Your task to perform on an android device: Open Google Maps Image 0: 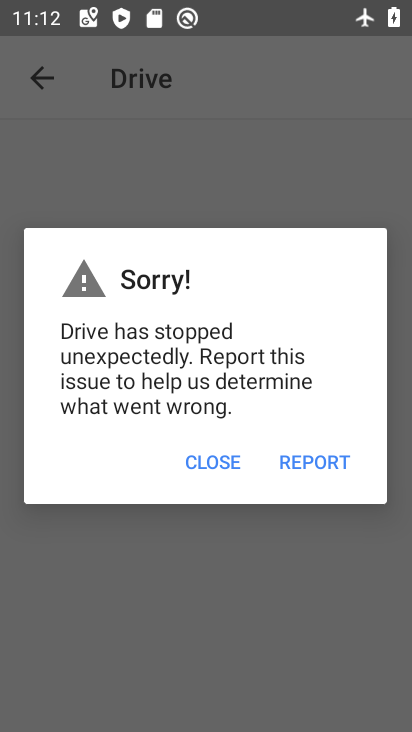
Step 0: press home button
Your task to perform on an android device: Open Google Maps Image 1: 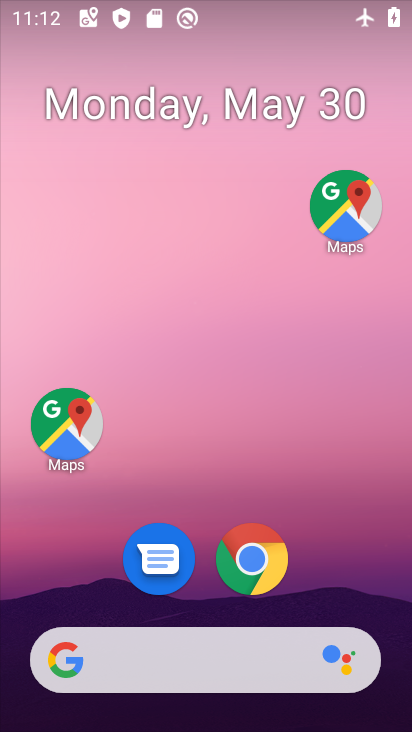
Step 1: click (67, 434)
Your task to perform on an android device: Open Google Maps Image 2: 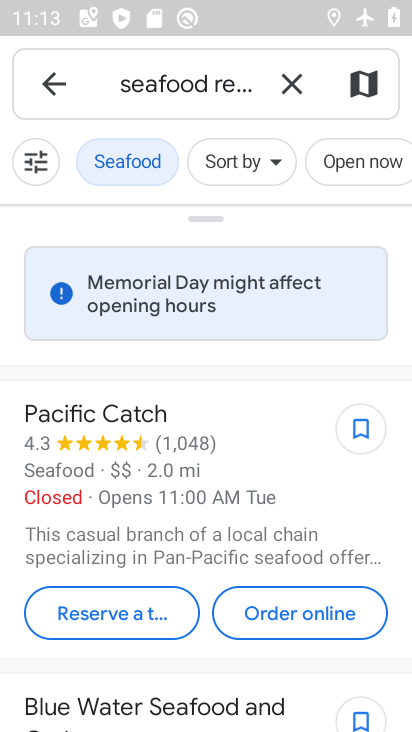
Step 2: task complete